Your task to perform on an android device: change the clock style Image 0: 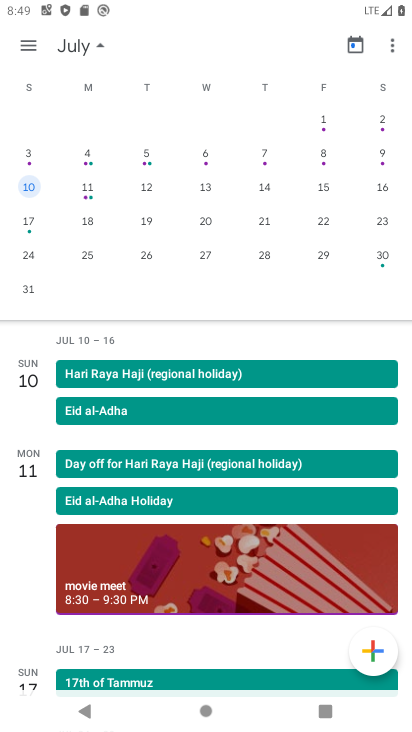
Step 0: press home button
Your task to perform on an android device: change the clock style Image 1: 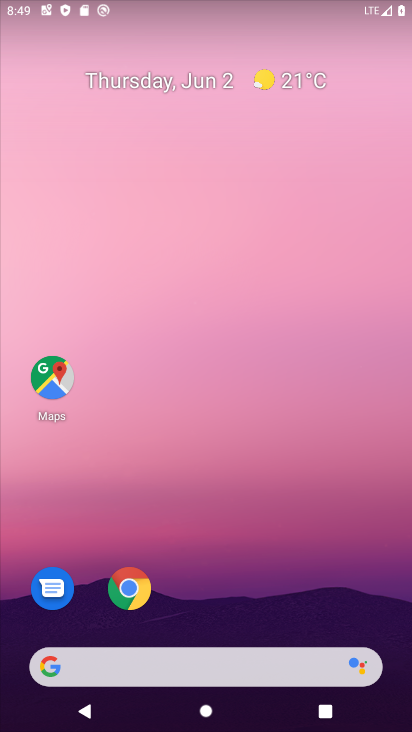
Step 1: drag from (161, 600) to (210, 78)
Your task to perform on an android device: change the clock style Image 2: 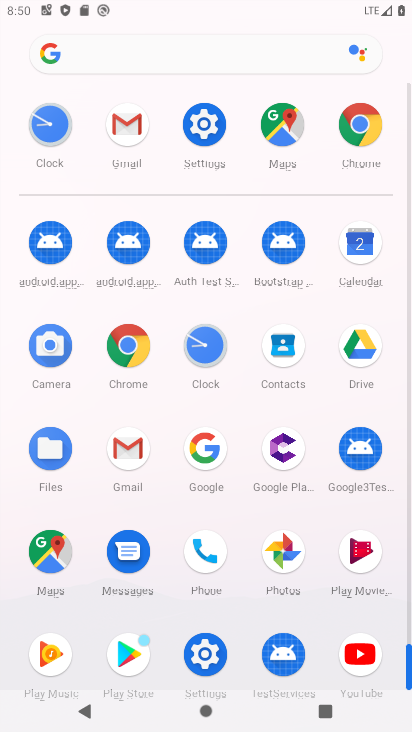
Step 2: click (183, 347)
Your task to perform on an android device: change the clock style Image 3: 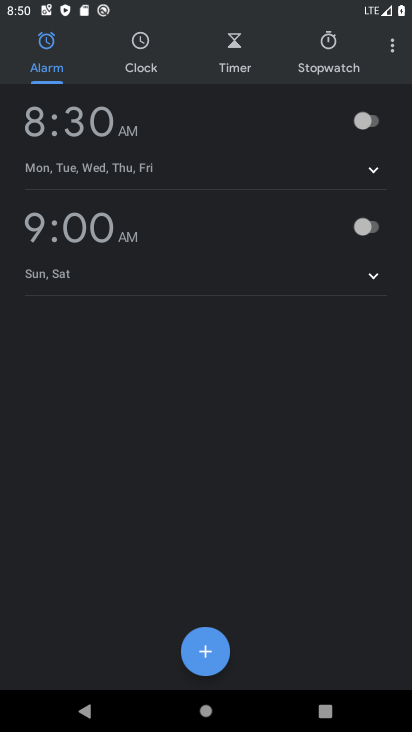
Step 3: click (394, 48)
Your task to perform on an android device: change the clock style Image 4: 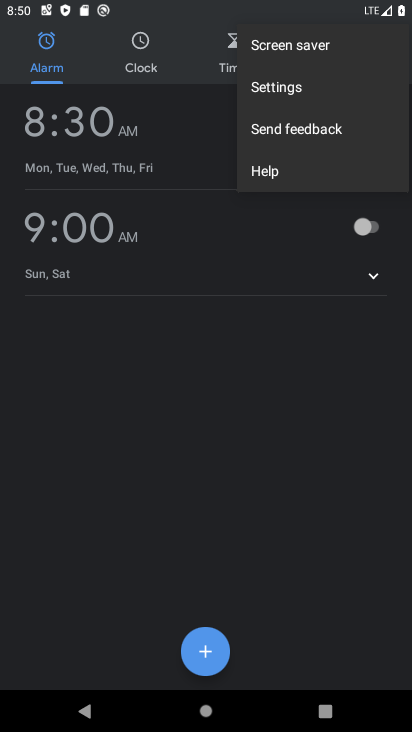
Step 4: click (279, 83)
Your task to perform on an android device: change the clock style Image 5: 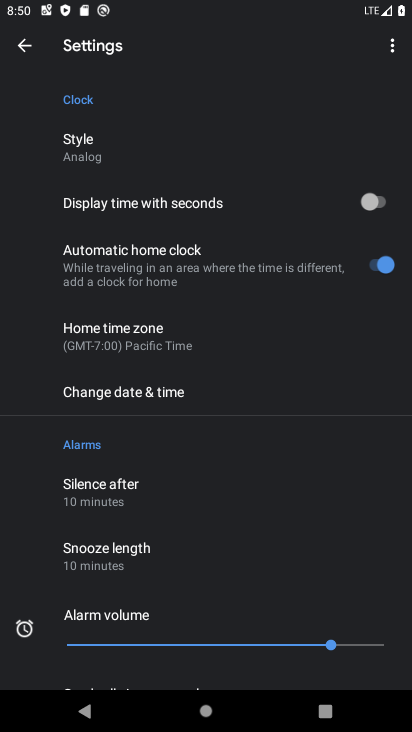
Step 5: click (123, 161)
Your task to perform on an android device: change the clock style Image 6: 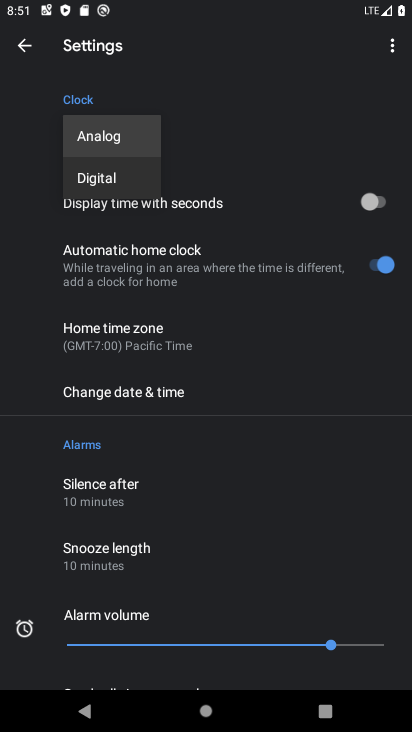
Step 6: click (122, 180)
Your task to perform on an android device: change the clock style Image 7: 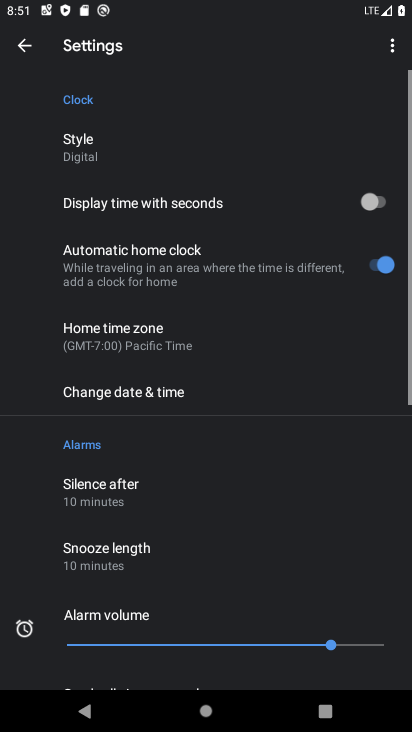
Step 7: task complete